Your task to perform on an android device: Open sound settings Image 0: 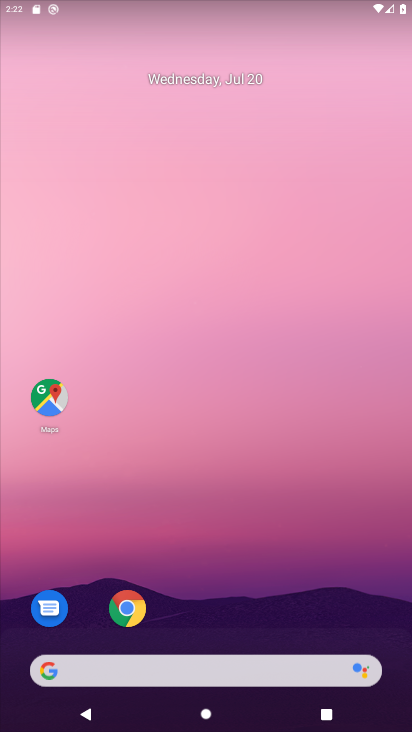
Step 0: drag from (224, 636) to (253, 193)
Your task to perform on an android device: Open sound settings Image 1: 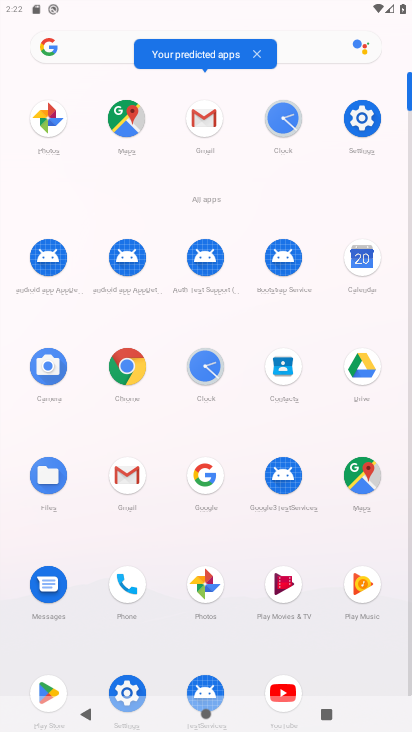
Step 1: click (132, 686)
Your task to perform on an android device: Open sound settings Image 2: 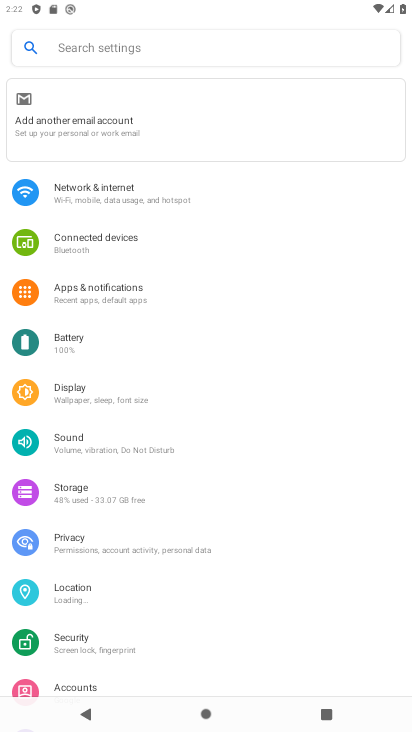
Step 2: click (86, 446)
Your task to perform on an android device: Open sound settings Image 3: 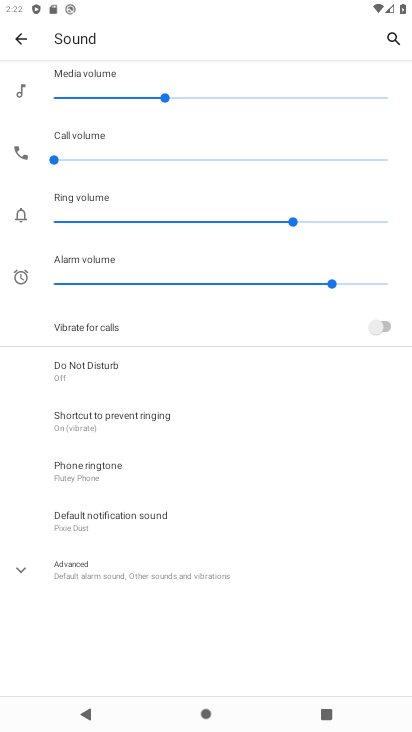
Step 3: task complete